Your task to perform on an android device: stop showing notifications on the lock screen Image 0: 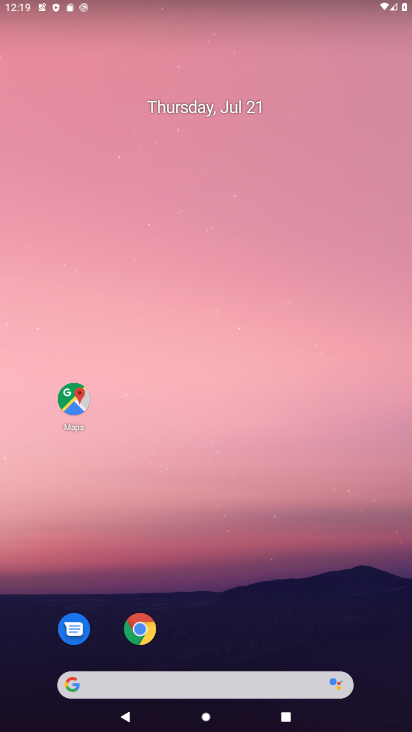
Step 0: drag from (339, 594) to (367, 184)
Your task to perform on an android device: stop showing notifications on the lock screen Image 1: 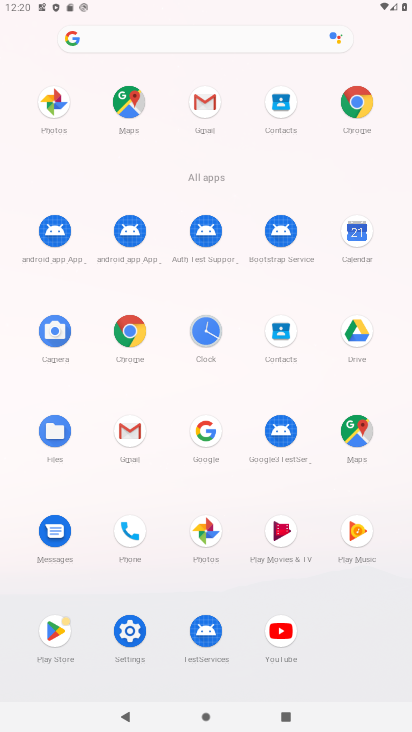
Step 1: click (133, 637)
Your task to perform on an android device: stop showing notifications on the lock screen Image 2: 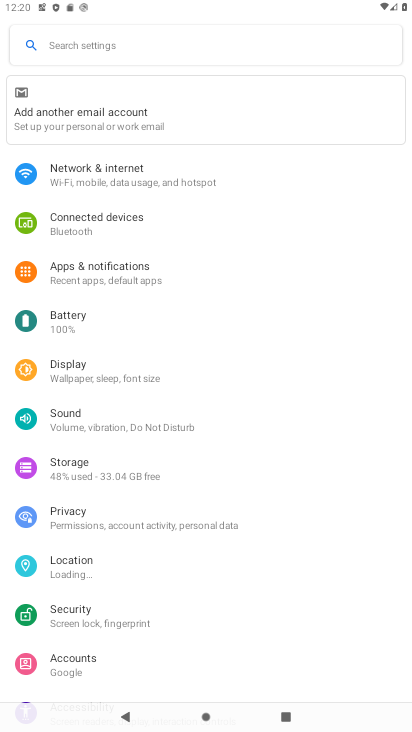
Step 2: drag from (319, 264) to (321, 409)
Your task to perform on an android device: stop showing notifications on the lock screen Image 3: 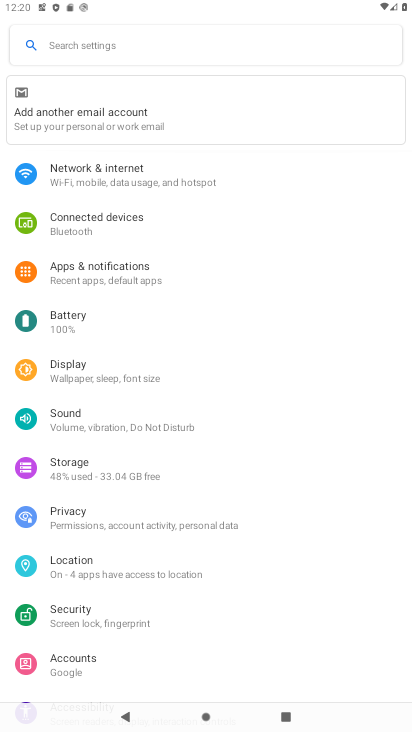
Step 3: drag from (343, 545) to (344, 445)
Your task to perform on an android device: stop showing notifications on the lock screen Image 4: 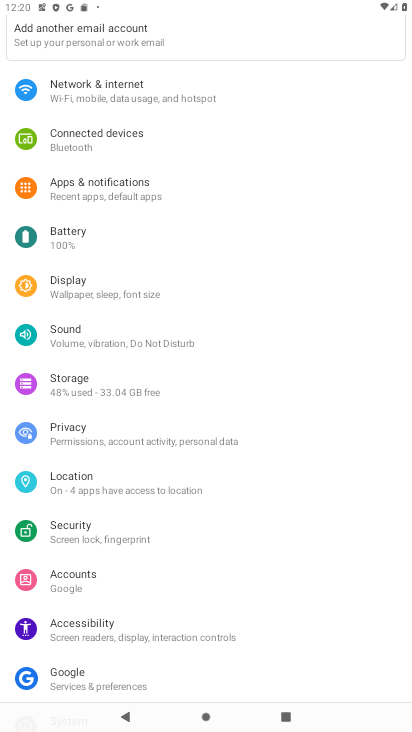
Step 4: drag from (347, 567) to (335, 447)
Your task to perform on an android device: stop showing notifications on the lock screen Image 5: 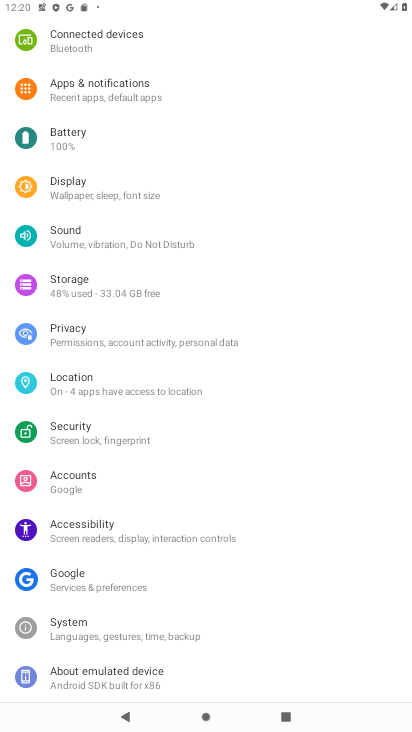
Step 5: drag from (322, 590) to (330, 498)
Your task to perform on an android device: stop showing notifications on the lock screen Image 6: 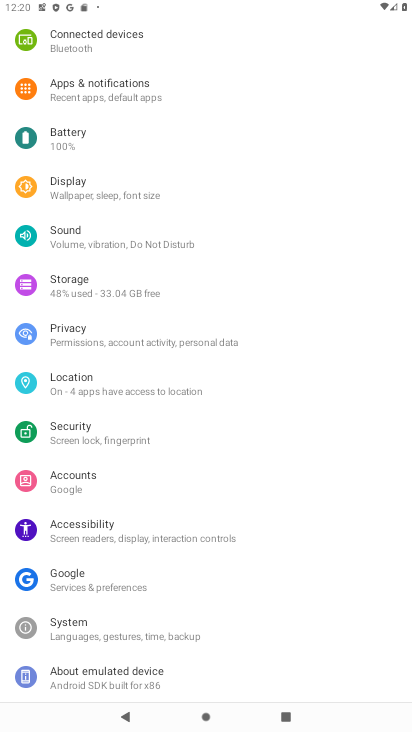
Step 6: drag from (330, 356) to (330, 496)
Your task to perform on an android device: stop showing notifications on the lock screen Image 7: 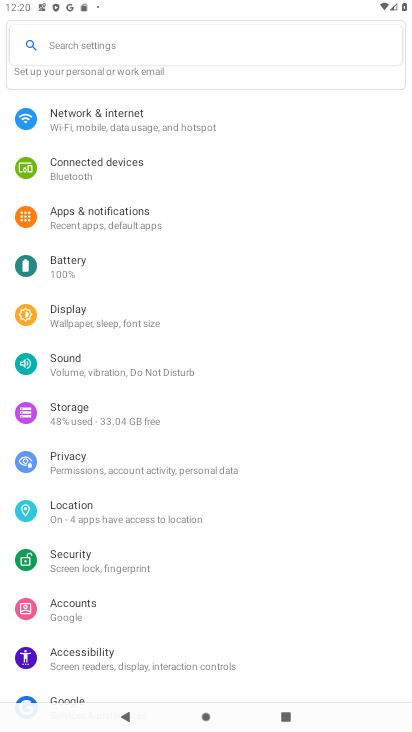
Step 7: drag from (299, 296) to (310, 437)
Your task to perform on an android device: stop showing notifications on the lock screen Image 8: 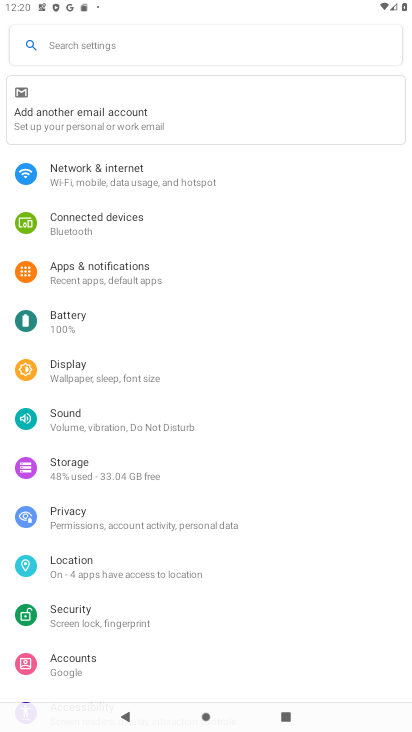
Step 8: click (133, 274)
Your task to perform on an android device: stop showing notifications on the lock screen Image 9: 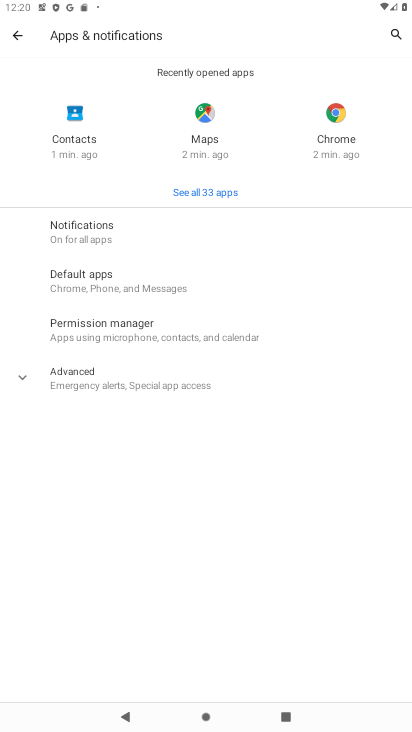
Step 9: click (105, 234)
Your task to perform on an android device: stop showing notifications on the lock screen Image 10: 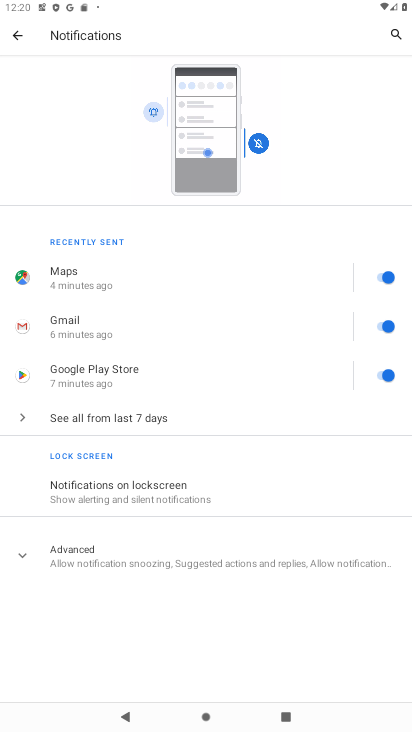
Step 10: click (187, 504)
Your task to perform on an android device: stop showing notifications on the lock screen Image 11: 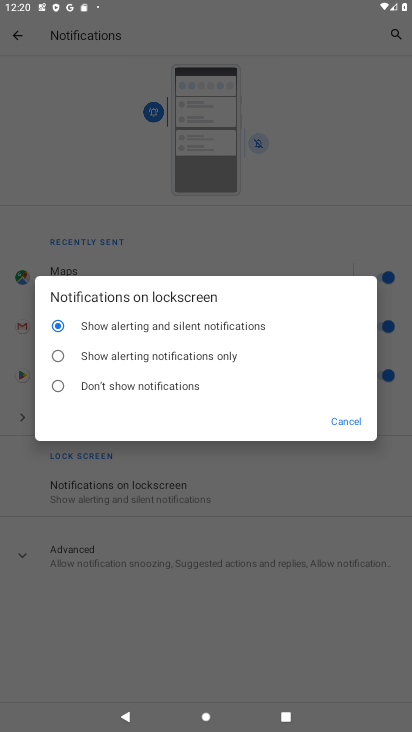
Step 11: click (158, 392)
Your task to perform on an android device: stop showing notifications on the lock screen Image 12: 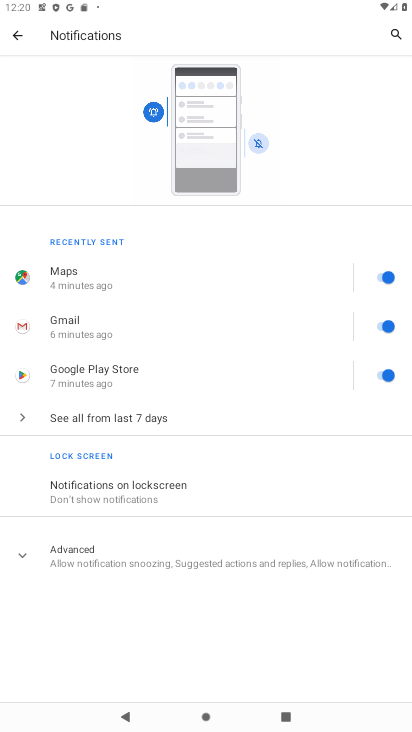
Step 12: task complete